Your task to perform on an android device: change the clock display to show seconds Image 0: 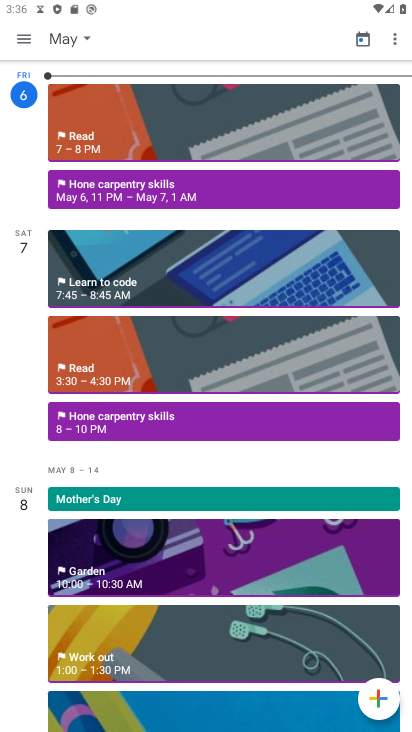
Step 0: press home button
Your task to perform on an android device: change the clock display to show seconds Image 1: 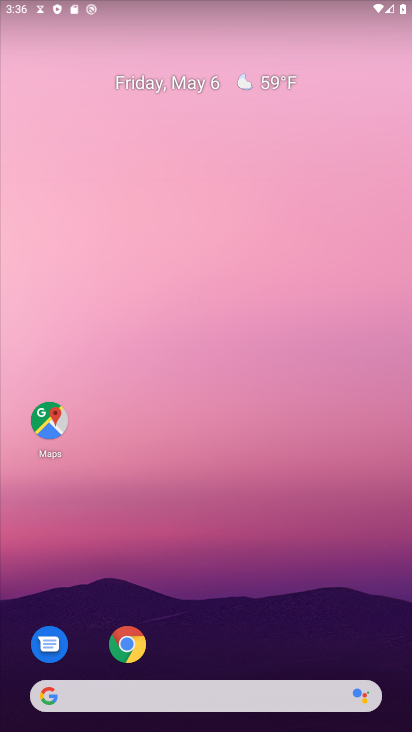
Step 1: drag from (190, 609) to (207, 62)
Your task to perform on an android device: change the clock display to show seconds Image 2: 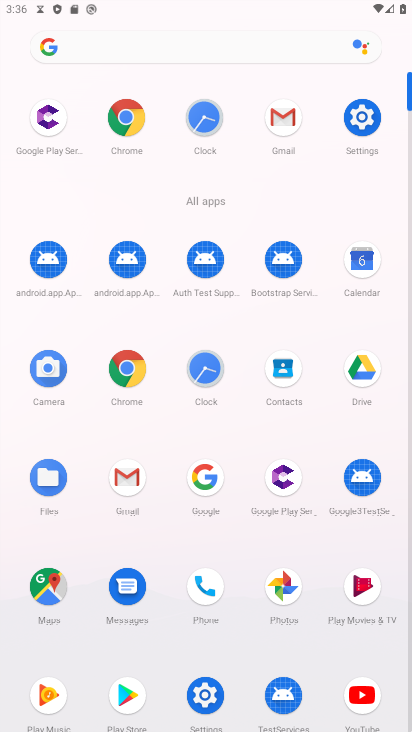
Step 2: click (206, 367)
Your task to perform on an android device: change the clock display to show seconds Image 3: 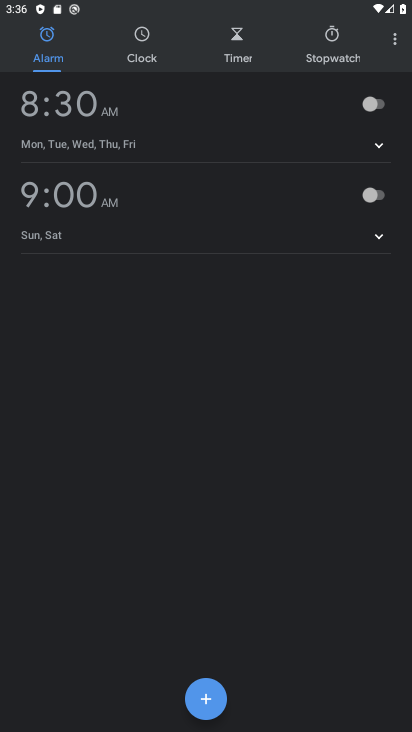
Step 3: click (393, 41)
Your task to perform on an android device: change the clock display to show seconds Image 4: 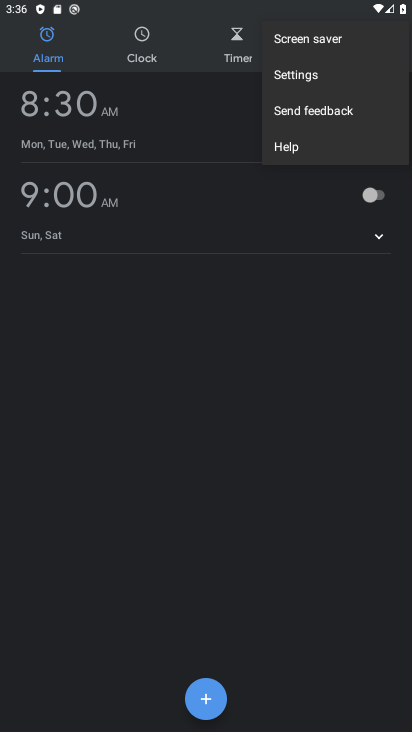
Step 4: click (312, 79)
Your task to perform on an android device: change the clock display to show seconds Image 5: 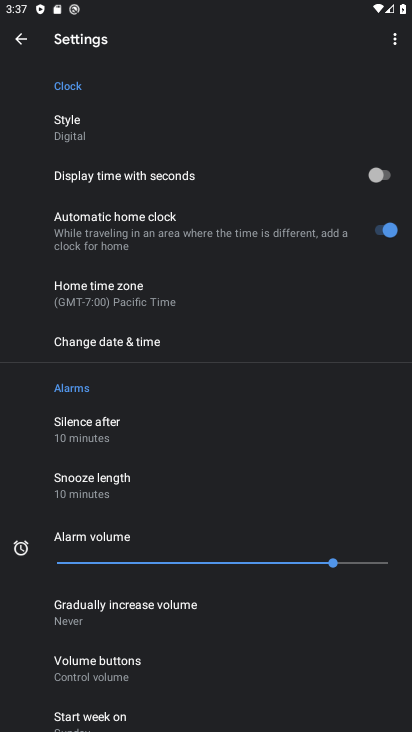
Step 5: click (379, 176)
Your task to perform on an android device: change the clock display to show seconds Image 6: 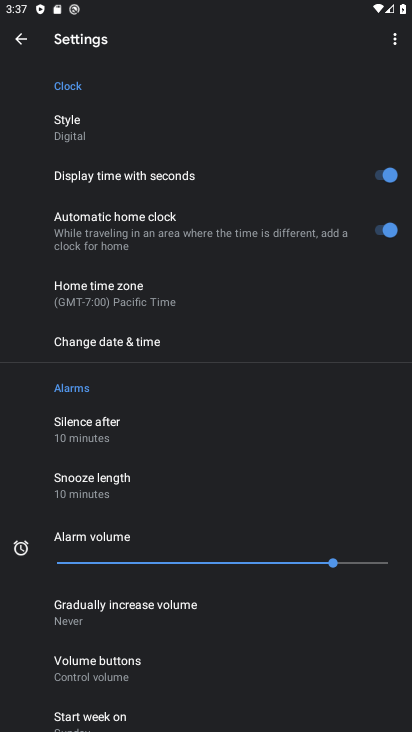
Step 6: task complete